Your task to perform on an android device: Open network settings Image 0: 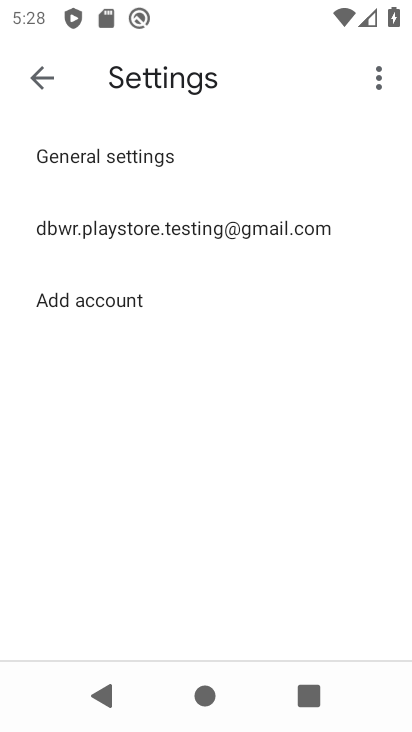
Step 0: press home button
Your task to perform on an android device: Open network settings Image 1: 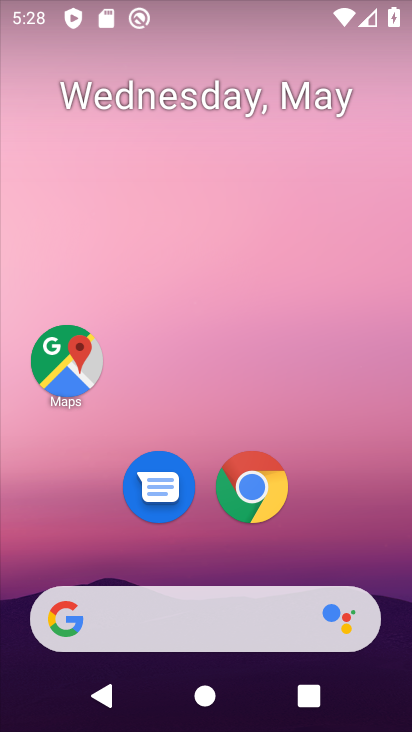
Step 1: drag from (195, 555) to (149, 62)
Your task to perform on an android device: Open network settings Image 2: 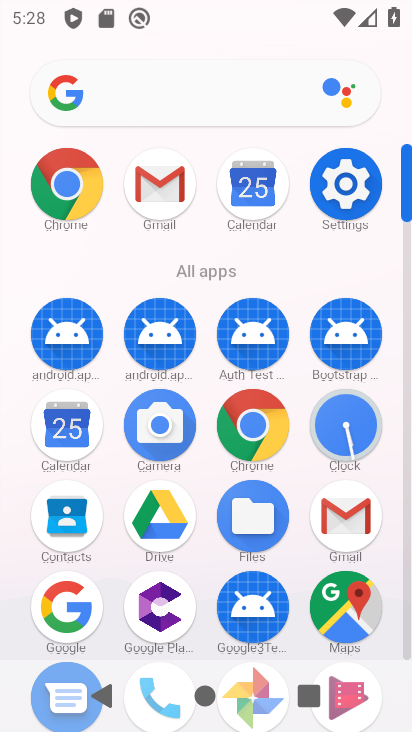
Step 2: click (353, 197)
Your task to perform on an android device: Open network settings Image 3: 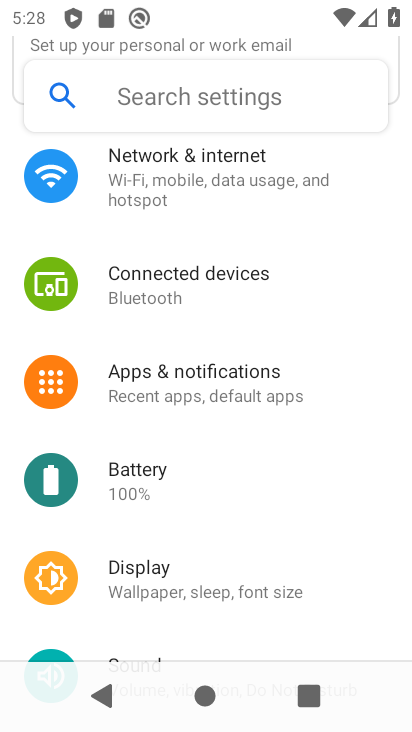
Step 3: click (163, 193)
Your task to perform on an android device: Open network settings Image 4: 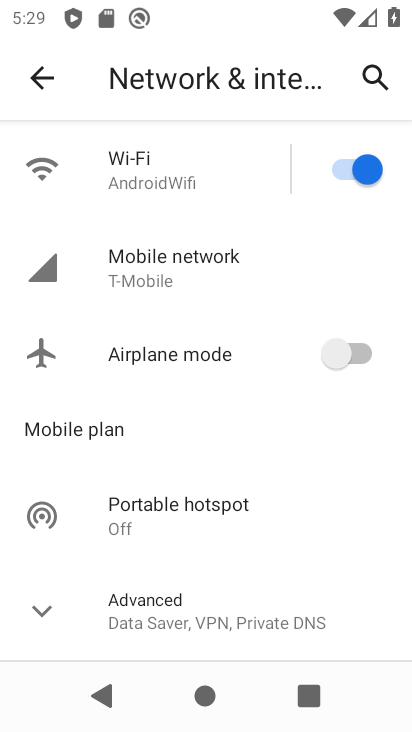
Step 4: task complete